Your task to perform on an android device: Go to display settings Image 0: 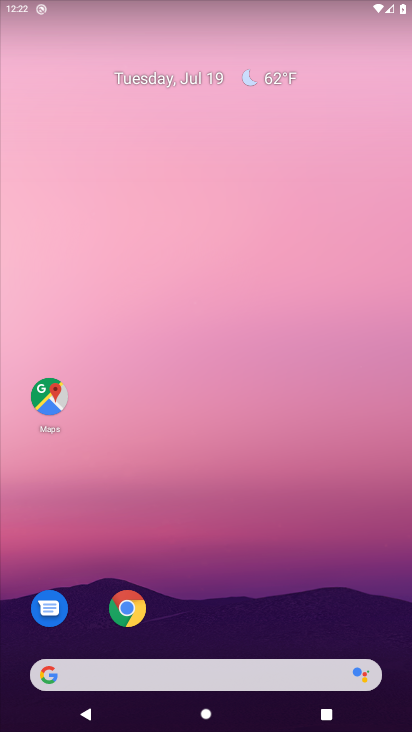
Step 0: press home button
Your task to perform on an android device: Go to display settings Image 1: 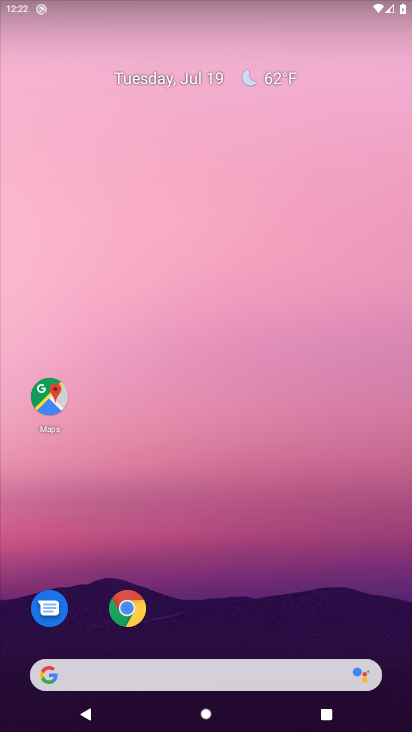
Step 1: drag from (210, 647) to (249, 35)
Your task to perform on an android device: Go to display settings Image 2: 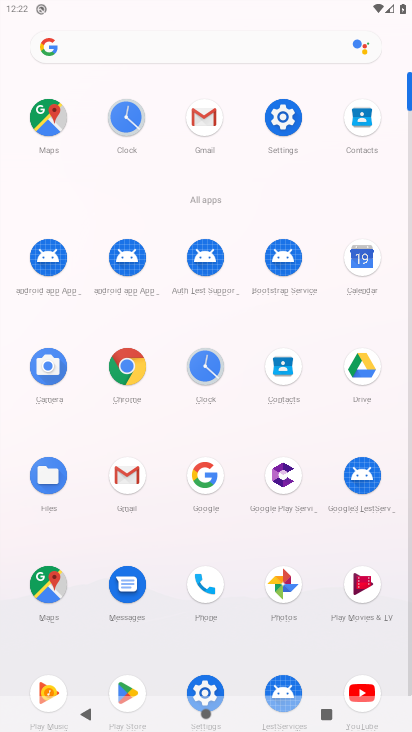
Step 2: click (282, 112)
Your task to perform on an android device: Go to display settings Image 3: 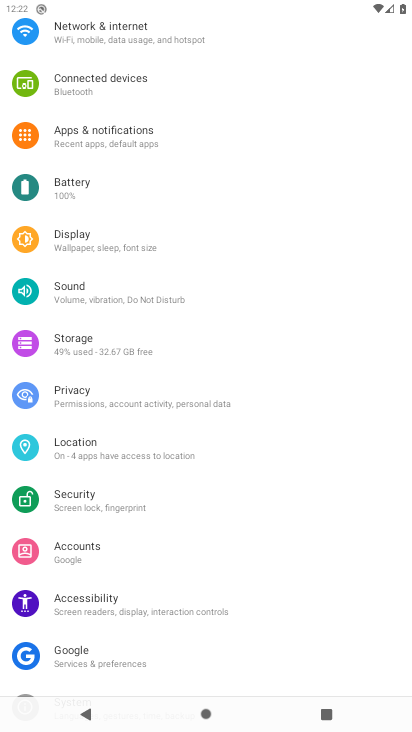
Step 3: click (97, 233)
Your task to perform on an android device: Go to display settings Image 4: 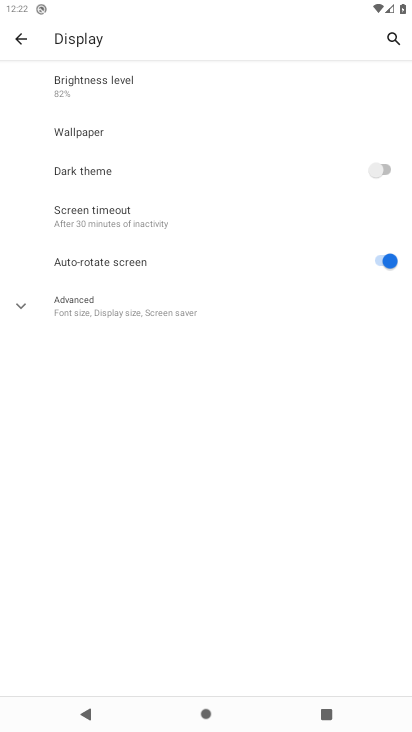
Step 4: click (16, 302)
Your task to perform on an android device: Go to display settings Image 5: 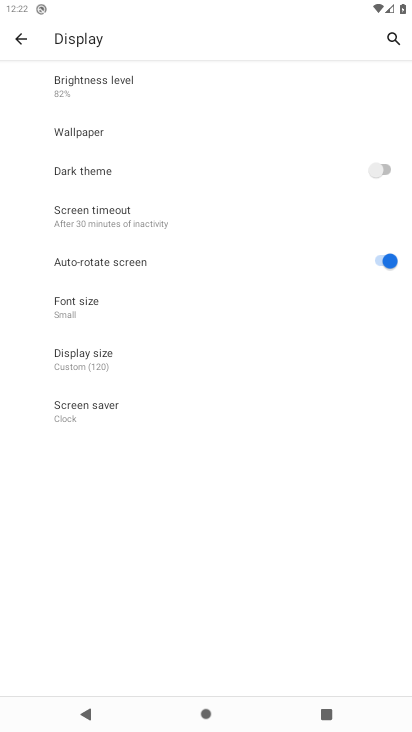
Step 5: task complete